Your task to perform on an android device: open a bookmark in the chrome app Image 0: 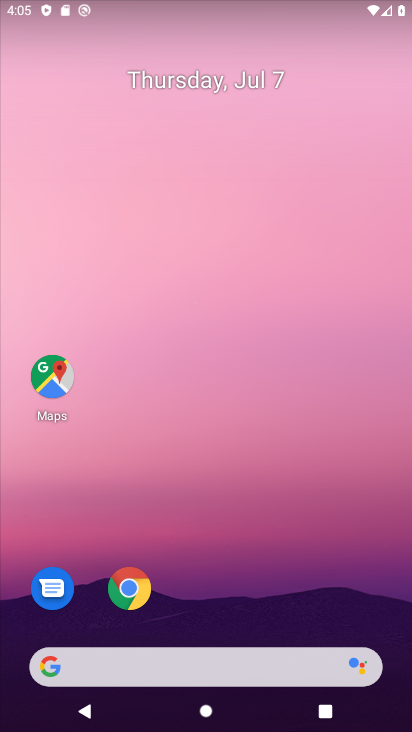
Step 0: drag from (183, 666) to (148, 31)
Your task to perform on an android device: open a bookmark in the chrome app Image 1: 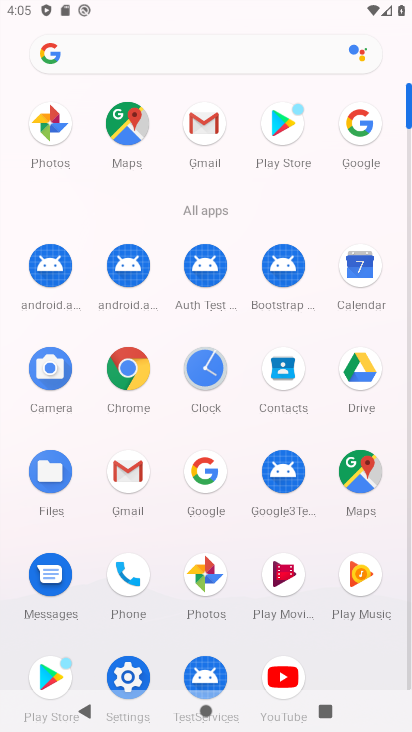
Step 1: click (125, 360)
Your task to perform on an android device: open a bookmark in the chrome app Image 2: 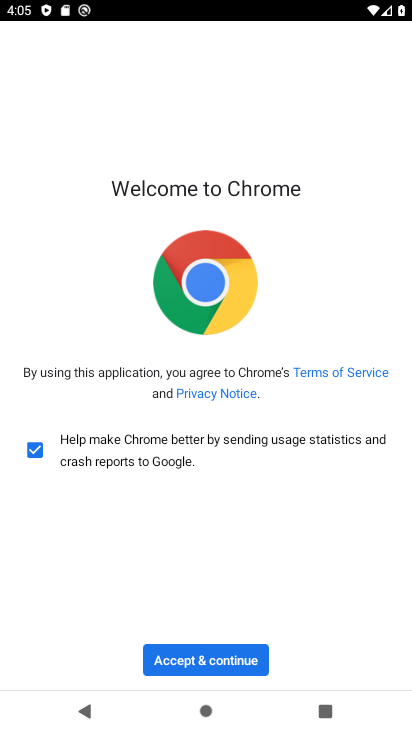
Step 2: click (235, 663)
Your task to perform on an android device: open a bookmark in the chrome app Image 3: 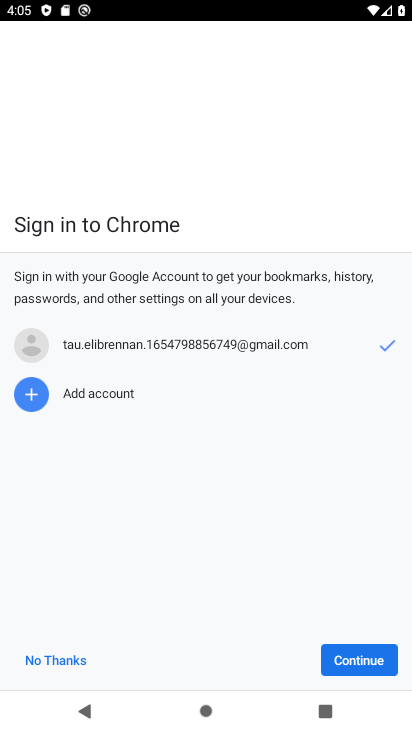
Step 3: click (71, 659)
Your task to perform on an android device: open a bookmark in the chrome app Image 4: 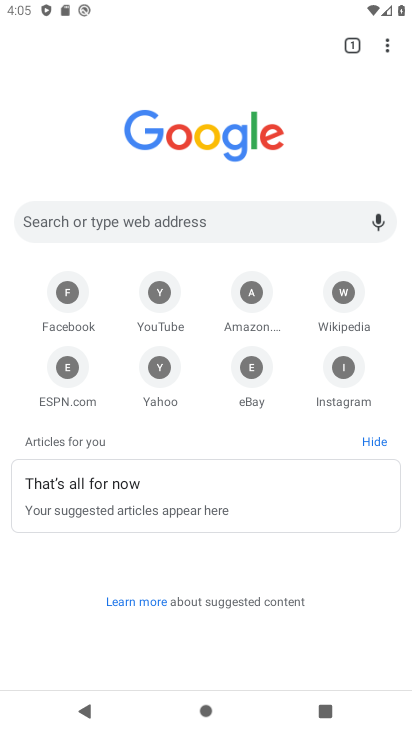
Step 4: click (381, 51)
Your task to perform on an android device: open a bookmark in the chrome app Image 5: 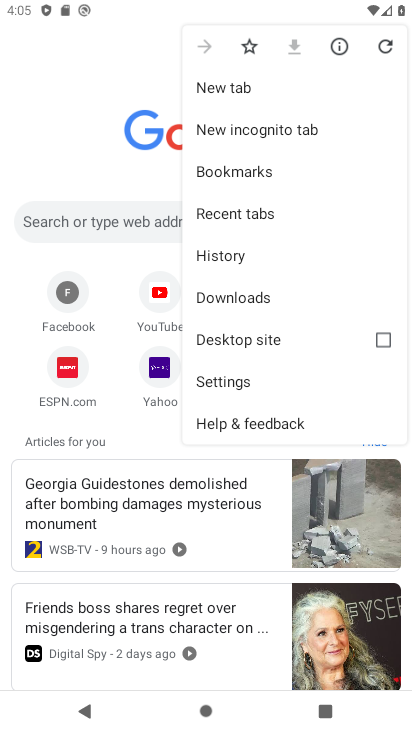
Step 5: click (250, 175)
Your task to perform on an android device: open a bookmark in the chrome app Image 6: 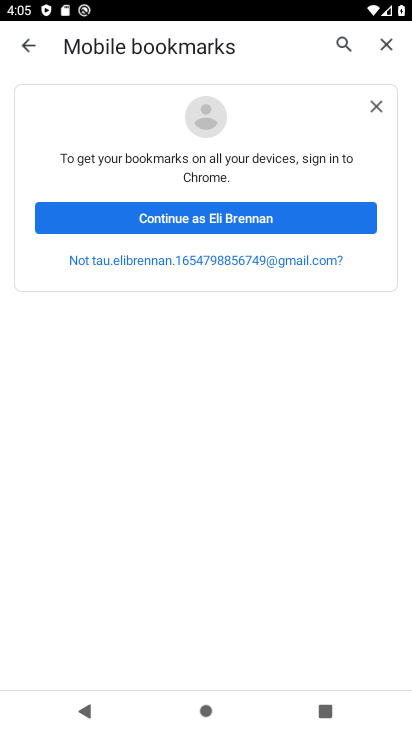
Step 6: task complete